Your task to perform on an android device: Open Google Maps and go to "Timeline" Image 0: 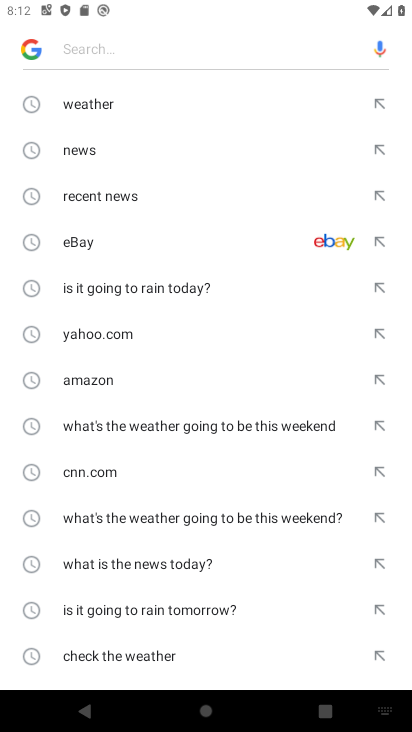
Step 0: press back button
Your task to perform on an android device: Open Google Maps and go to "Timeline" Image 1: 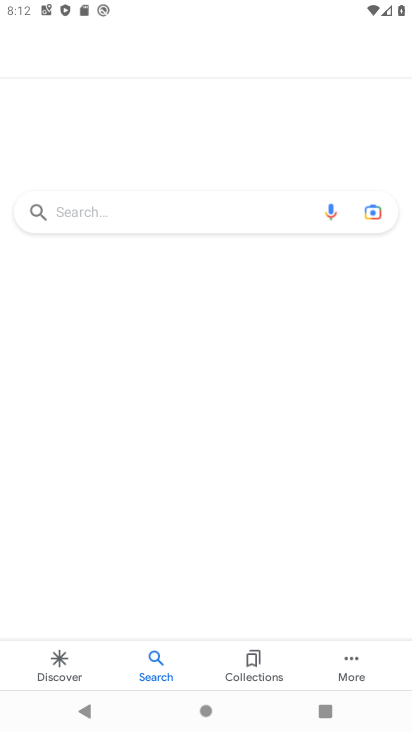
Step 1: press back button
Your task to perform on an android device: Open Google Maps and go to "Timeline" Image 2: 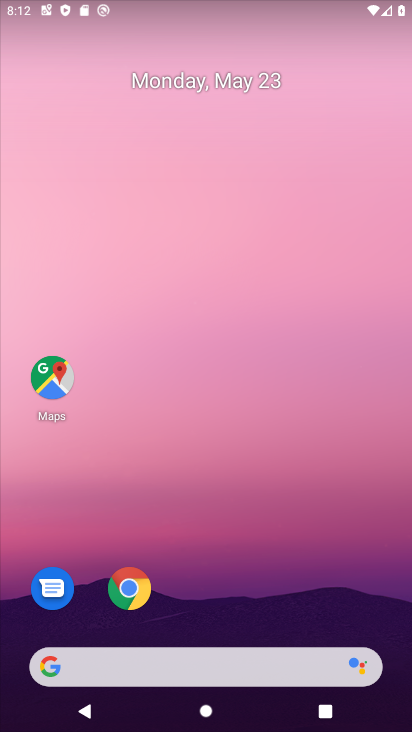
Step 2: click (66, 379)
Your task to perform on an android device: Open Google Maps and go to "Timeline" Image 3: 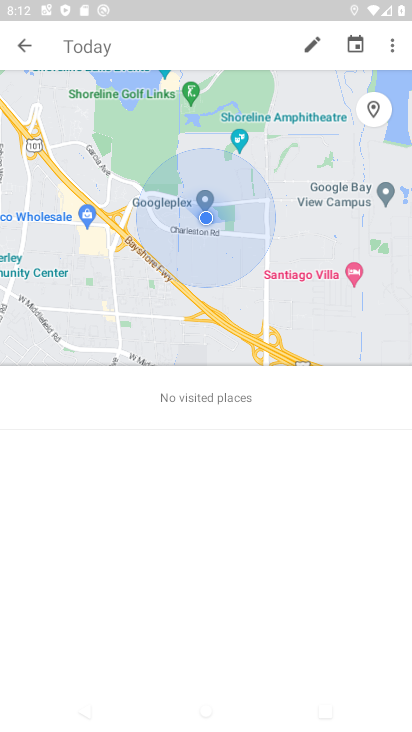
Step 3: click (23, 44)
Your task to perform on an android device: Open Google Maps and go to "Timeline" Image 4: 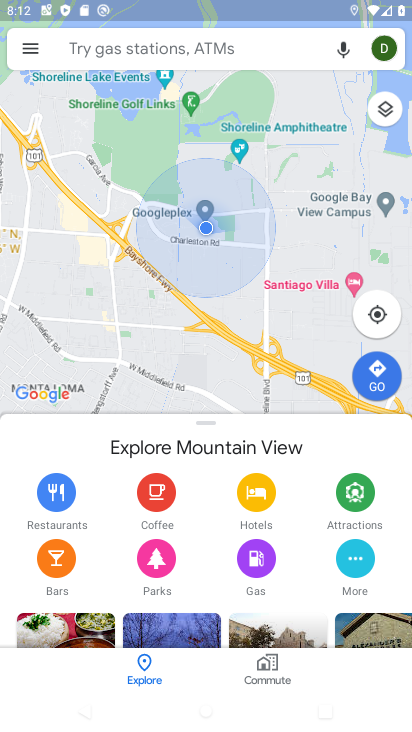
Step 4: click (29, 50)
Your task to perform on an android device: Open Google Maps and go to "Timeline" Image 5: 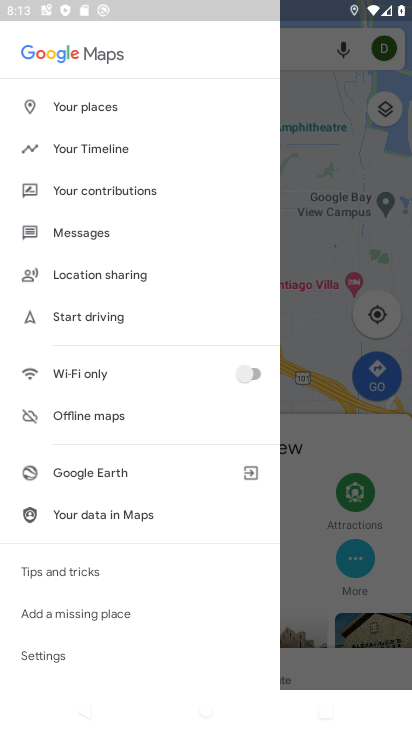
Step 5: click (66, 144)
Your task to perform on an android device: Open Google Maps and go to "Timeline" Image 6: 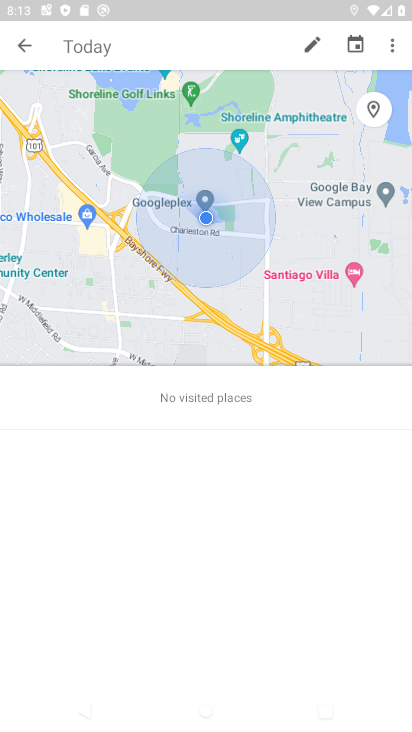
Step 6: task complete